Your task to perform on an android device: toggle location history Image 0: 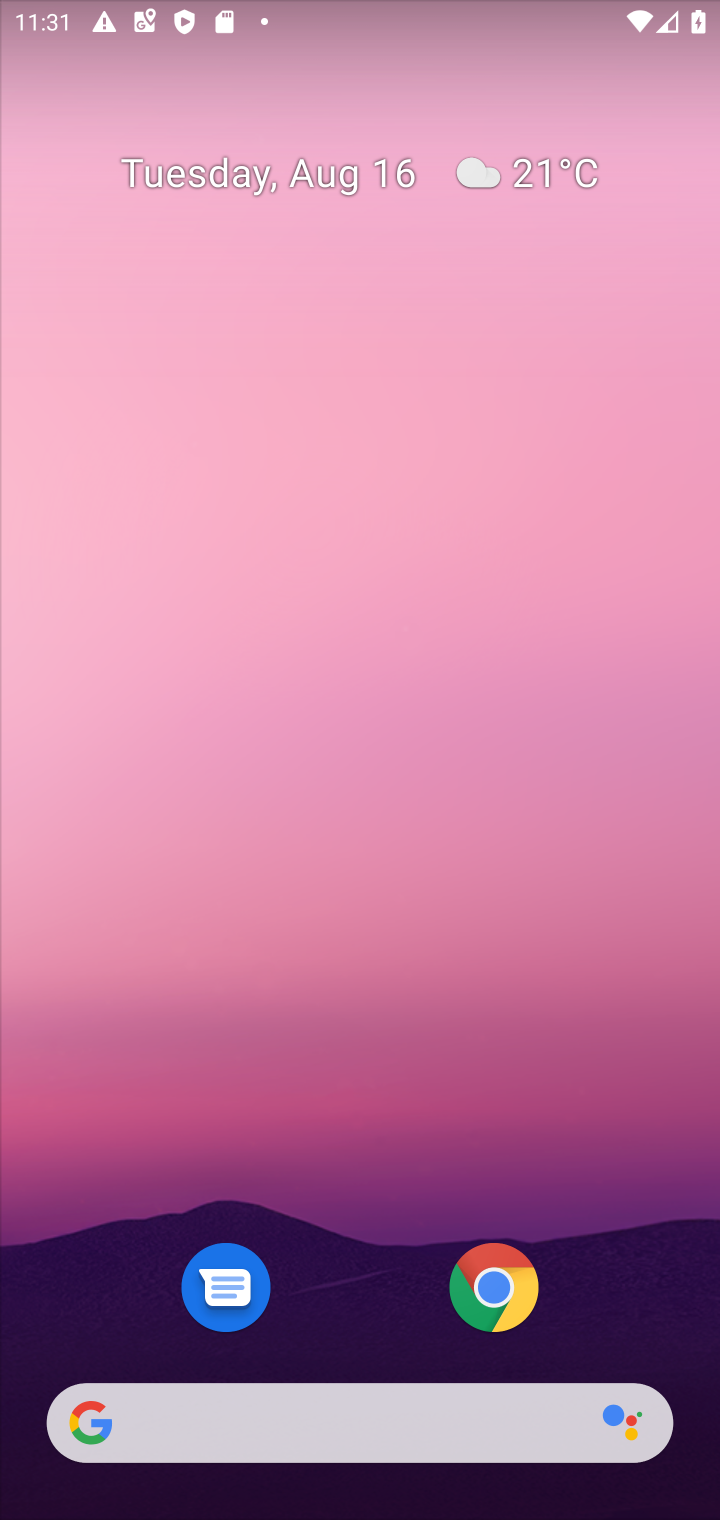
Step 0: drag from (650, 1301) to (591, 148)
Your task to perform on an android device: toggle location history Image 1: 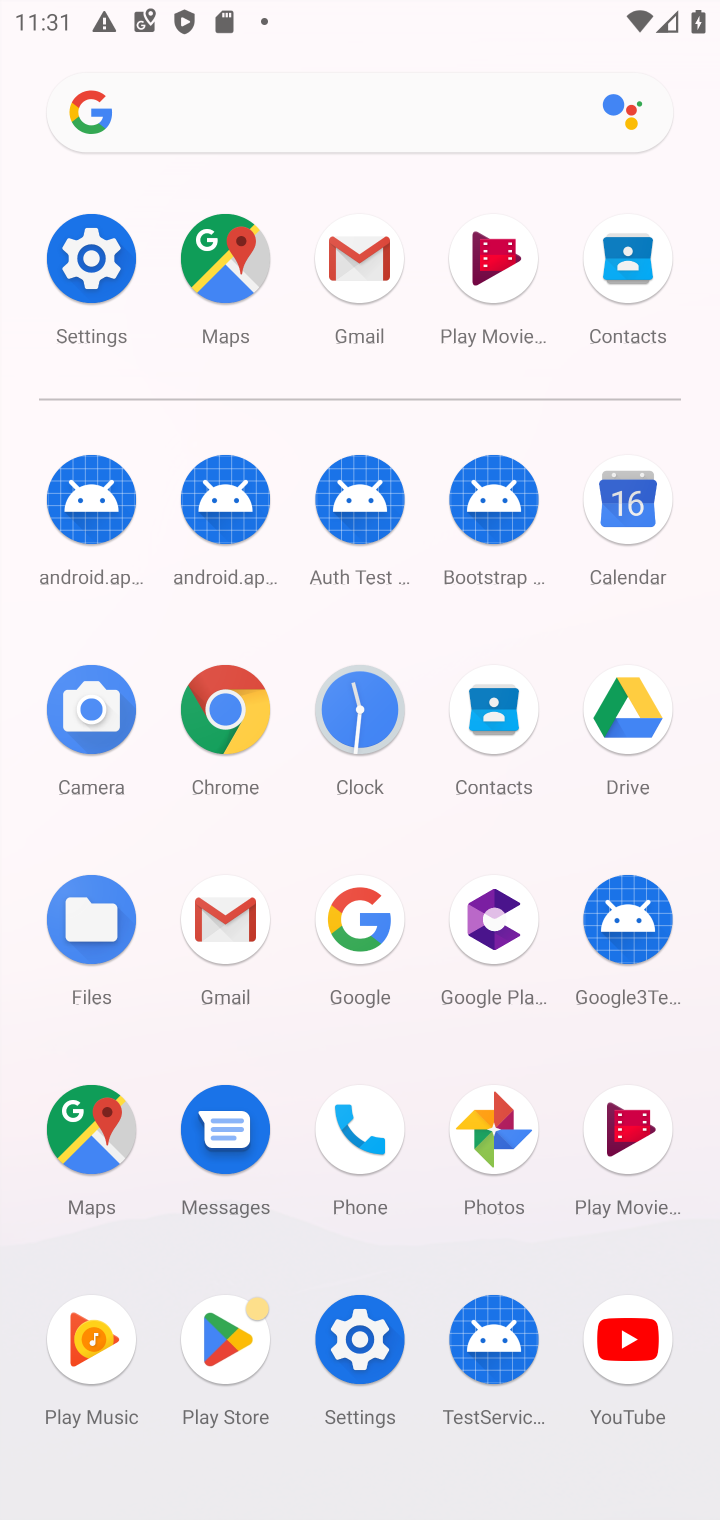
Step 1: click (95, 1131)
Your task to perform on an android device: toggle location history Image 2: 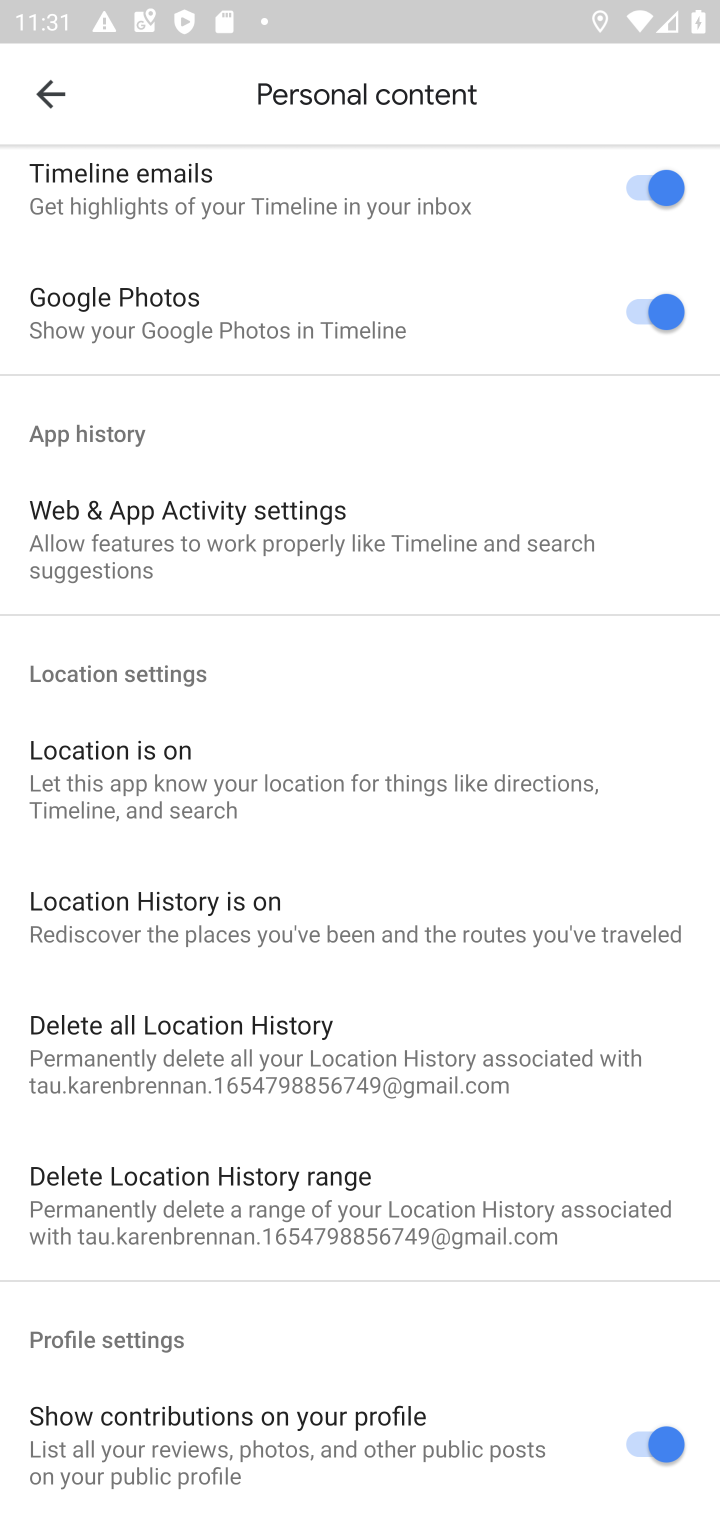
Step 2: click (108, 923)
Your task to perform on an android device: toggle location history Image 3: 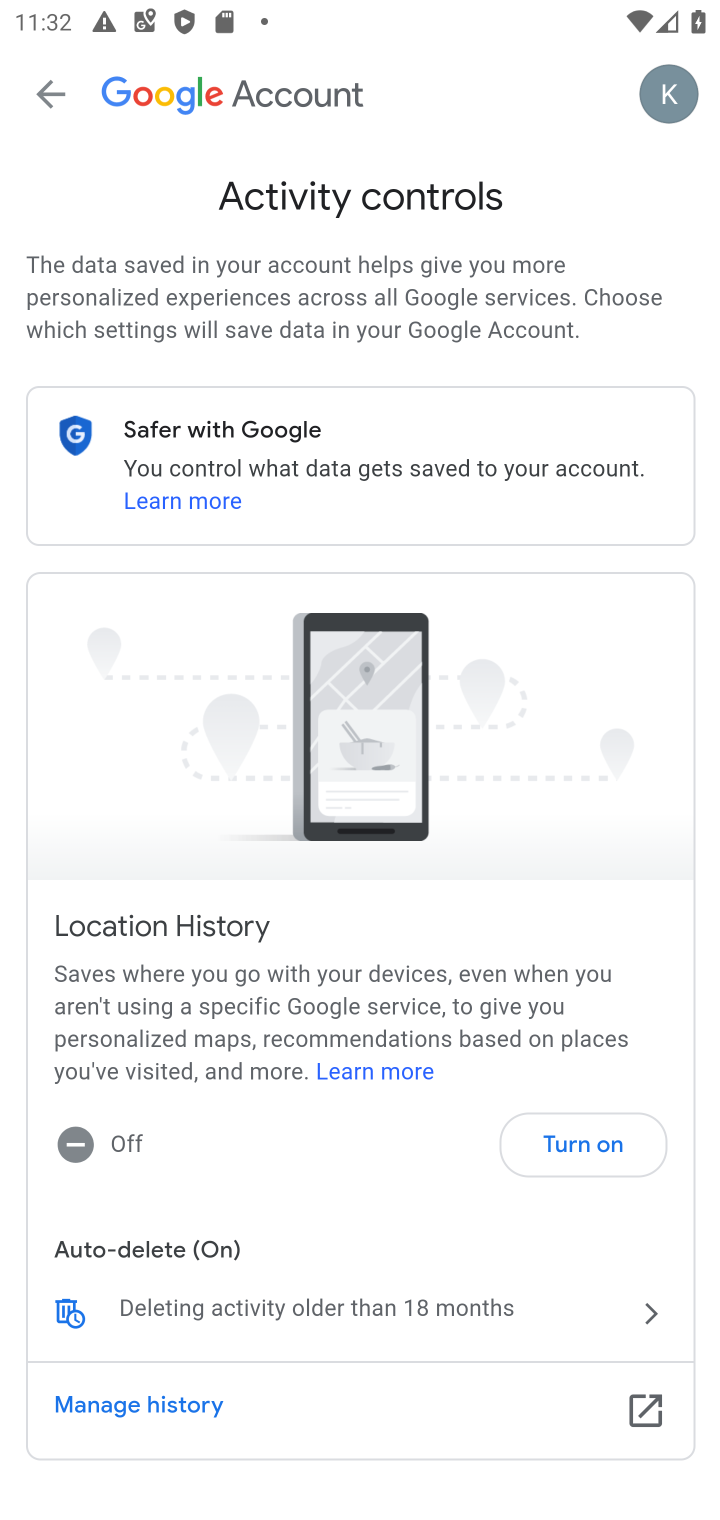
Step 3: click (577, 1150)
Your task to perform on an android device: toggle location history Image 4: 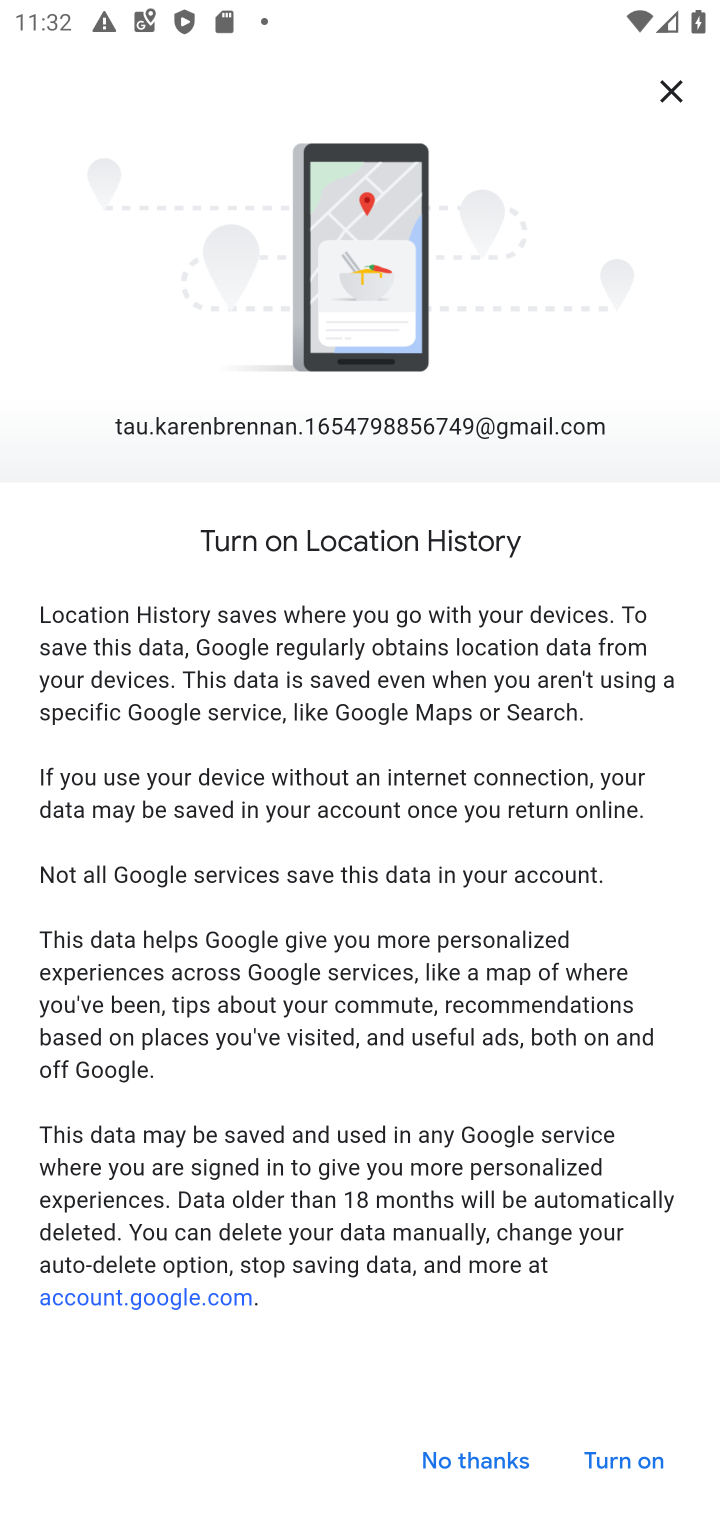
Step 4: click (614, 1459)
Your task to perform on an android device: toggle location history Image 5: 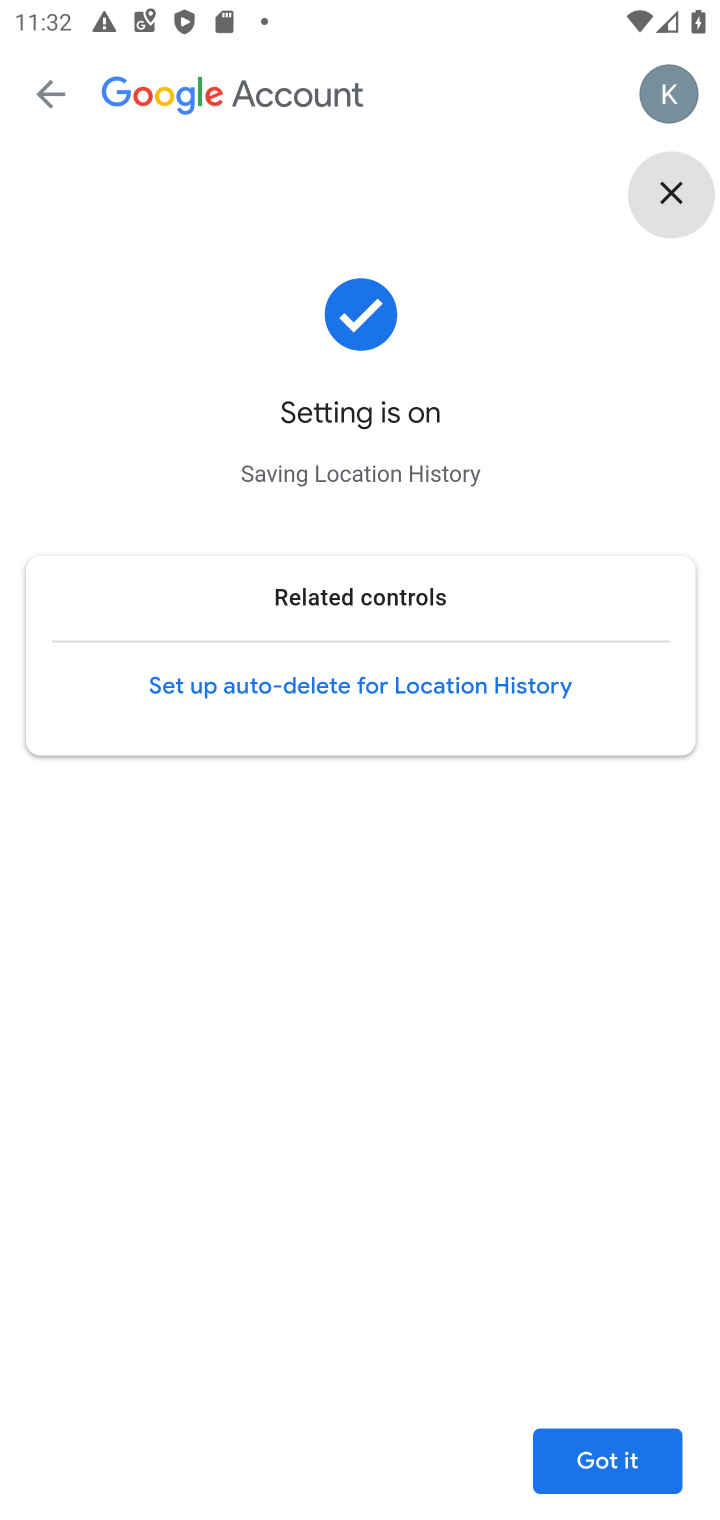
Step 5: click (617, 1468)
Your task to perform on an android device: toggle location history Image 6: 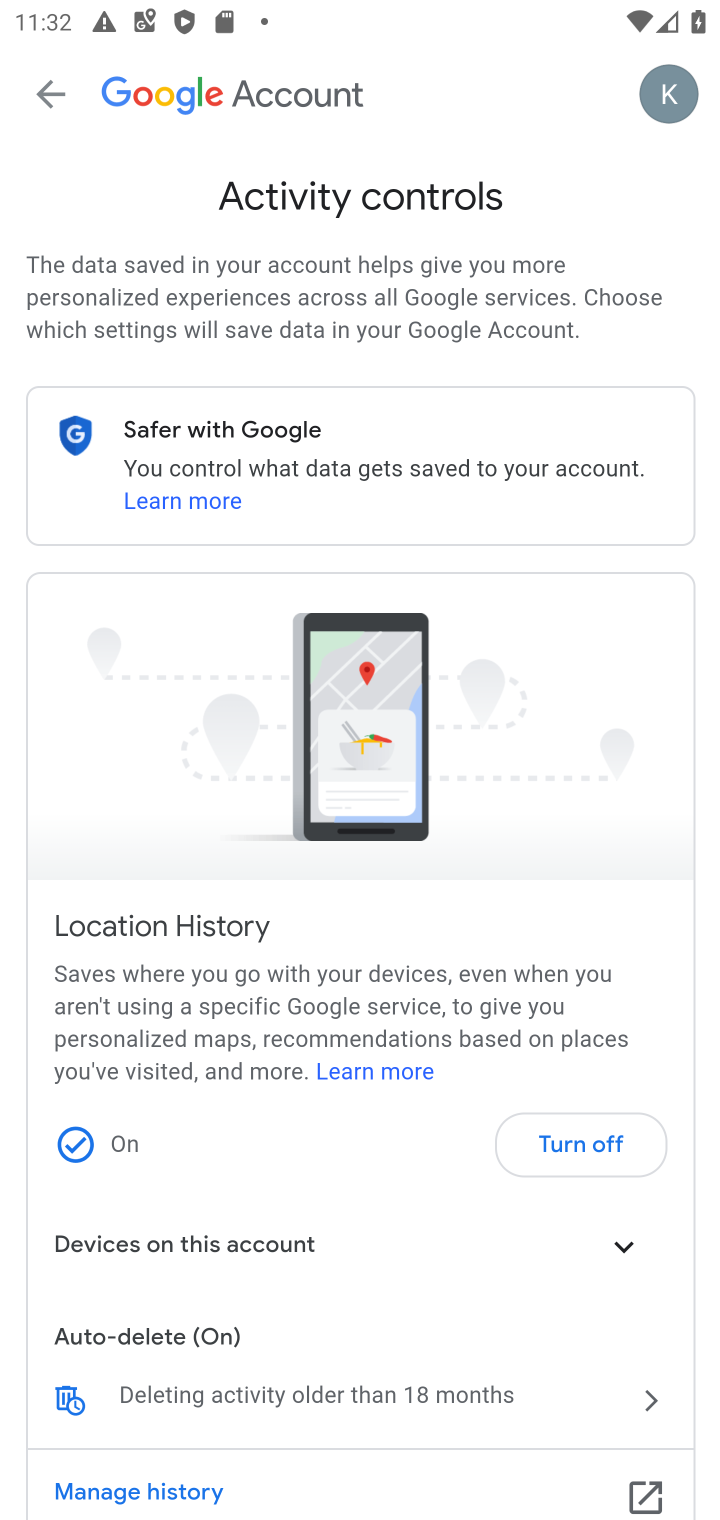
Step 6: task complete